Your task to perform on an android device: star an email in the gmail app Image 0: 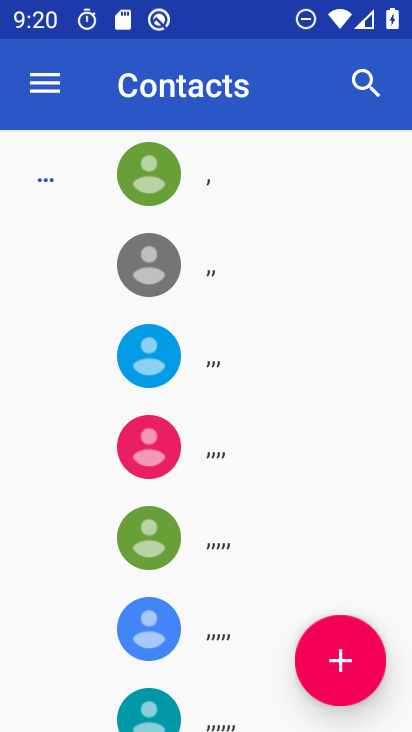
Step 0: press home button
Your task to perform on an android device: star an email in the gmail app Image 1: 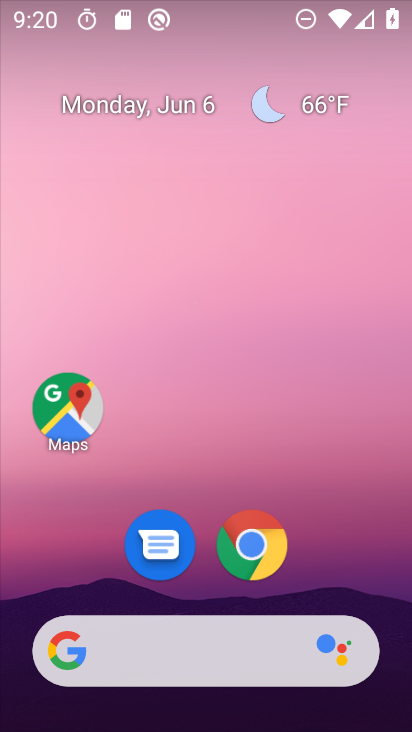
Step 1: drag from (198, 583) to (289, 17)
Your task to perform on an android device: star an email in the gmail app Image 2: 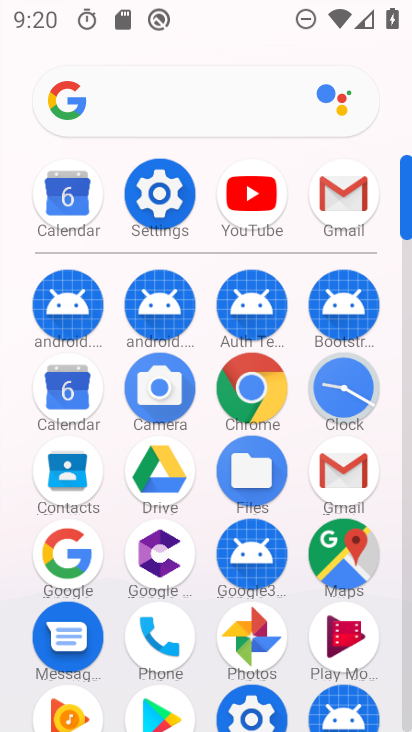
Step 2: click (341, 465)
Your task to perform on an android device: star an email in the gmail app Image 3: 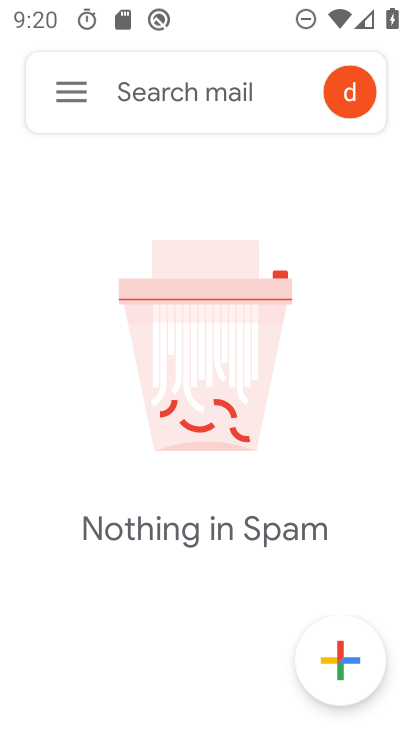
Step 3: click (89, 75)
Your task to perform on an android device: star an email in the gmail app Image 4: 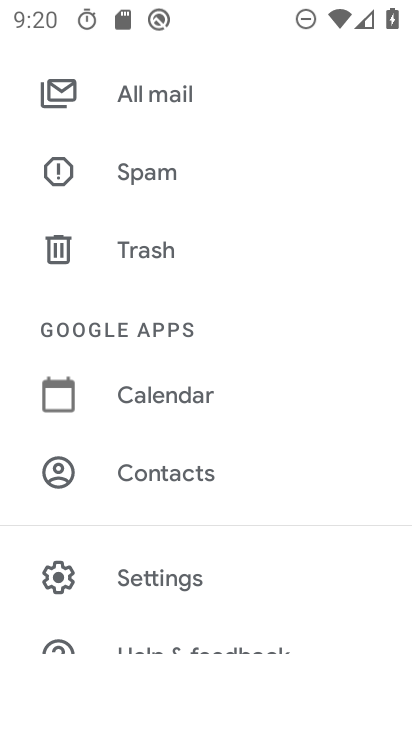
Step 4: click (199, 111)
Your task to perform on an android device: star an email in the gmail app Image 5: 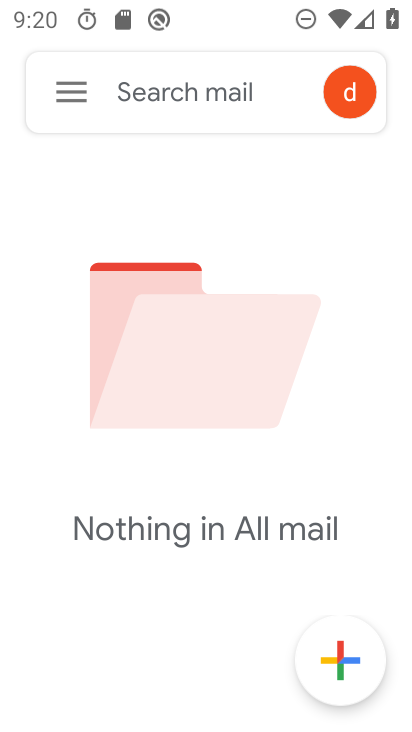
Step 5: task complete